Your task to perform on an android device: check storage Image 0: 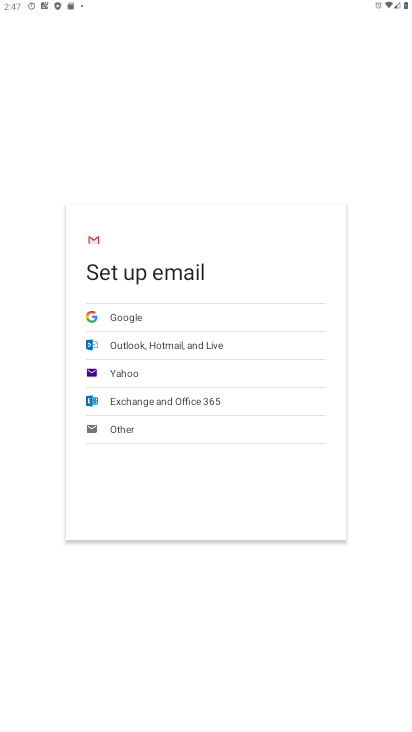
Step 0: press home button
Your task to perform on an android device: check storage Image 1: 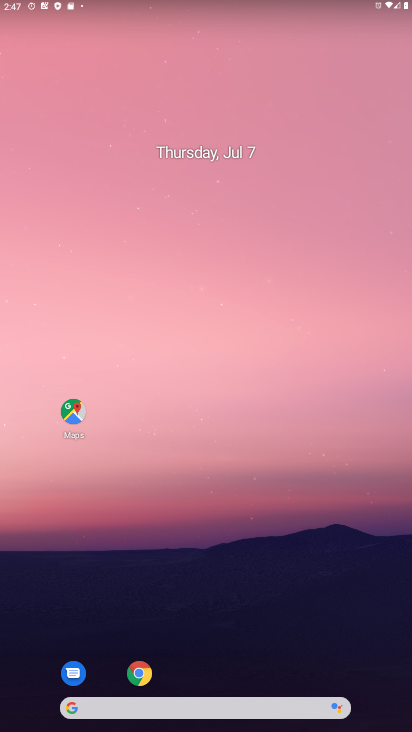
Step 1: drag from (194, 661) to (102, 50)
Your task to perform on an android device: check storage Image 2: 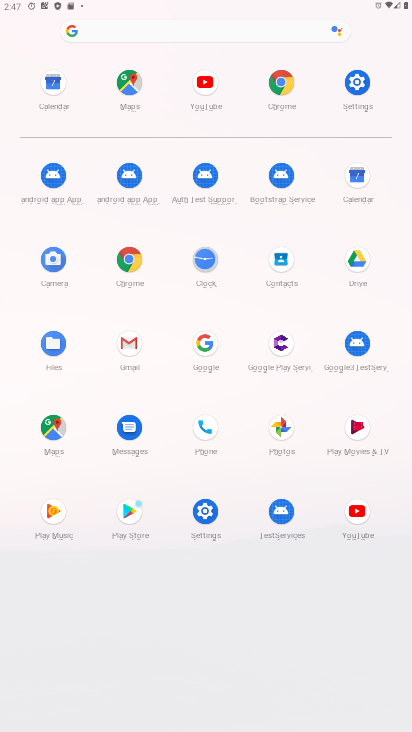
Step 2: click (363, 93)
Your task to perform on an android device: check storage Image 3: 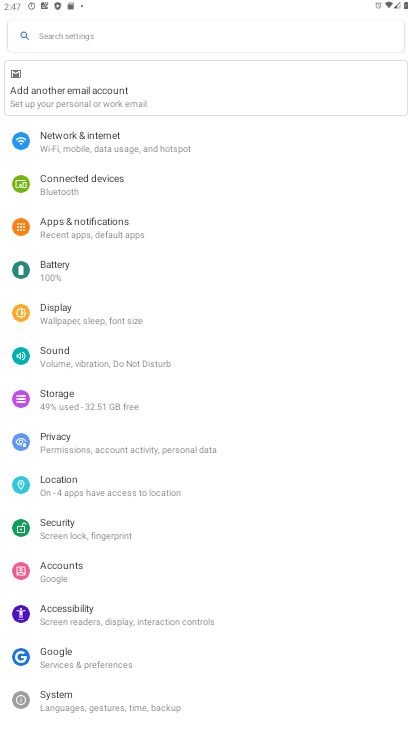
Step 3: click (52, 403)
Your task to perform on an android device: check storage Image 4: 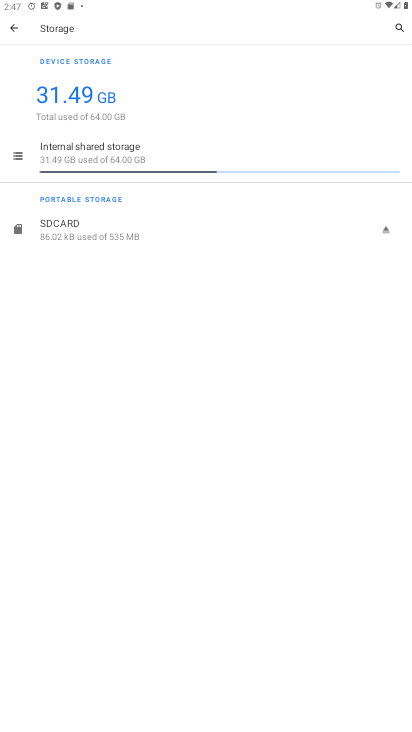
Step 4: task complete